Your task to perform on an android device: See recent photos Image 0: 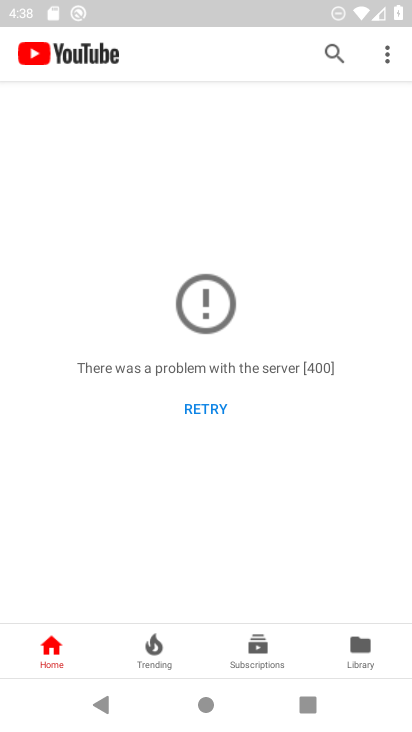
Step 0: press home button
Your task to perform on an android device: See recent photos Image 1: 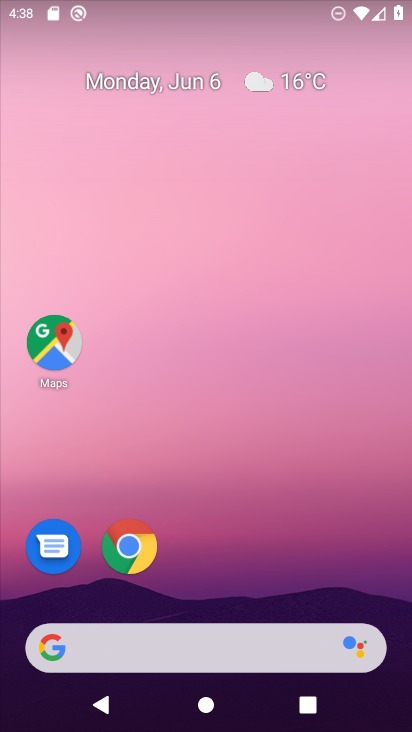
Step 1: drag from (186, 615) to (188, 101)
Your task to perform on an android device: See recent photos Image 2: 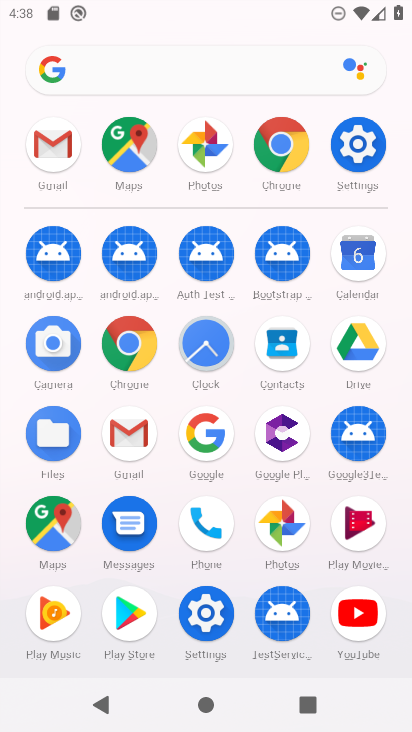
Step 2: click (212, 155)
Your task to perform on an android device: See recent photos Image 3: 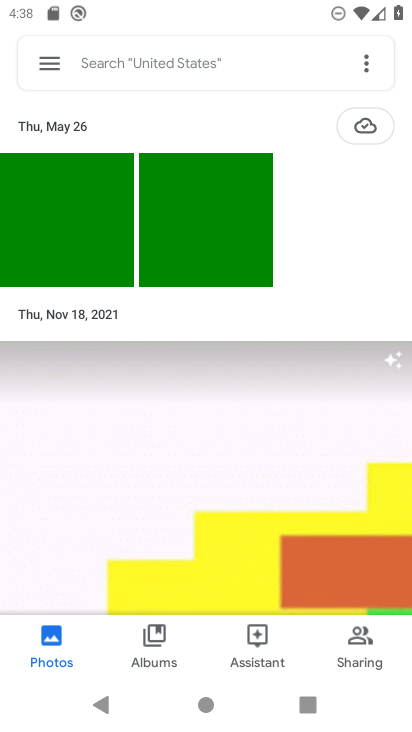
Step 3: task complete